Your task to perform on an android device: Open Android settings Image 0: 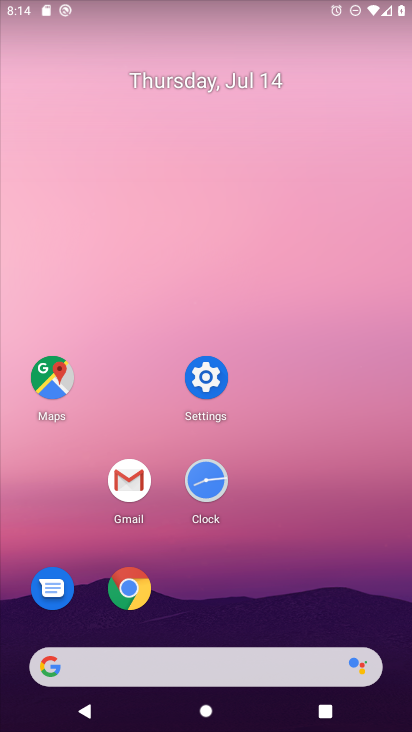
Step 0: click (196, 377)
Your task to perform on an android device: Open Android settings Image 1: 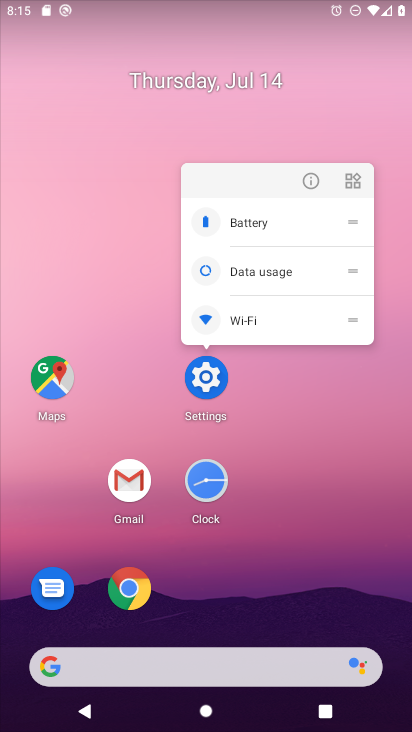
Step 1: click (198, 374)
Your task to perform on an android device: Open Android settings Image 2: 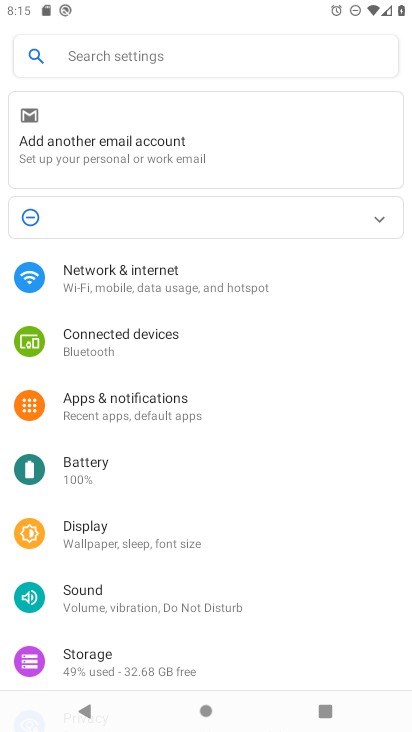
Step 2: task complete